Your task to perform on an android device: Search for vegetarian restaurants on Maps Image 0: 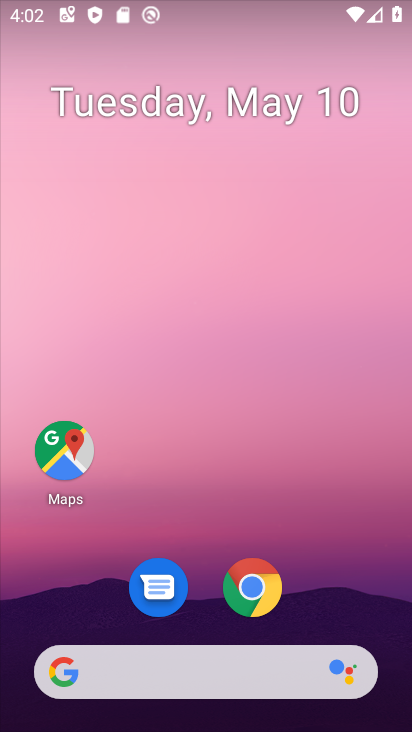
Step 0: drag from (292, 674) to (239, 253)
Your task to perform on an android device: Search for vegetarian restaurants on Maps Image 1: 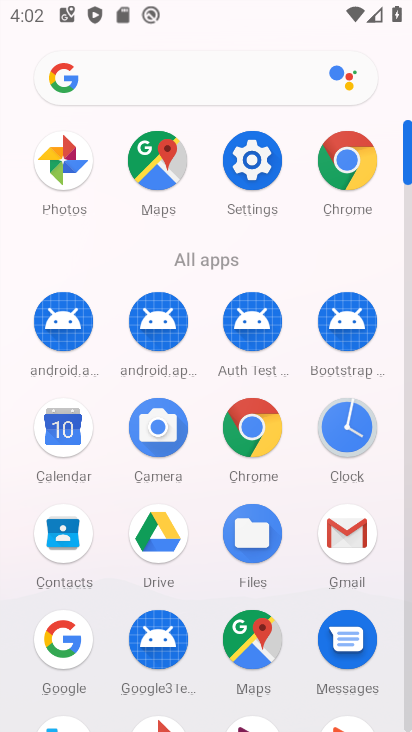
Step 1: click (145, 187)
Your task to perform on an android device: Search for vegetarian restaurants on Maps Image 2: 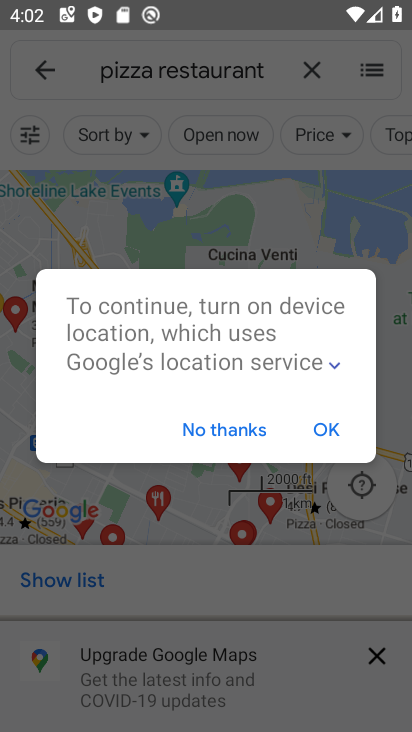
Step 2: click (241, 421)
Your task to perform on an android device: Search for vegetarian restaurants on Maps Image 3: 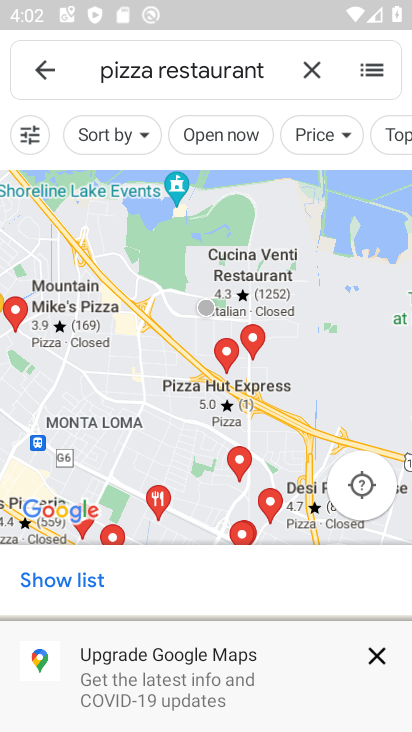
Step 3: click (313, 70)
Your task to perform on an android device: Search for vegetarian restaurants on Maps Image 4: 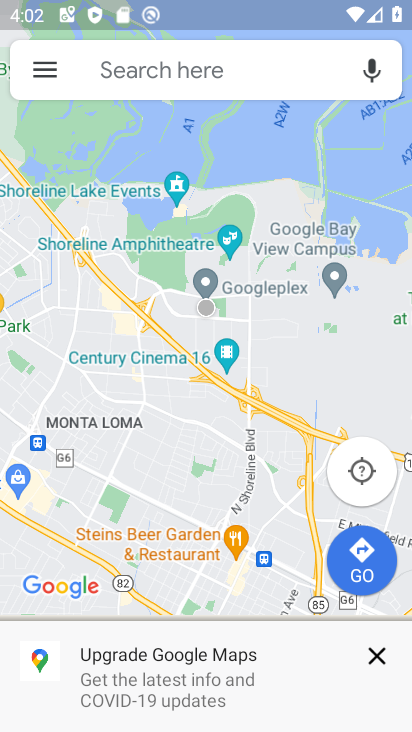
Step 4: click (221, 75)
Your task to perform on an android device: Search for vegetarian restaurants on Maps Image 5: 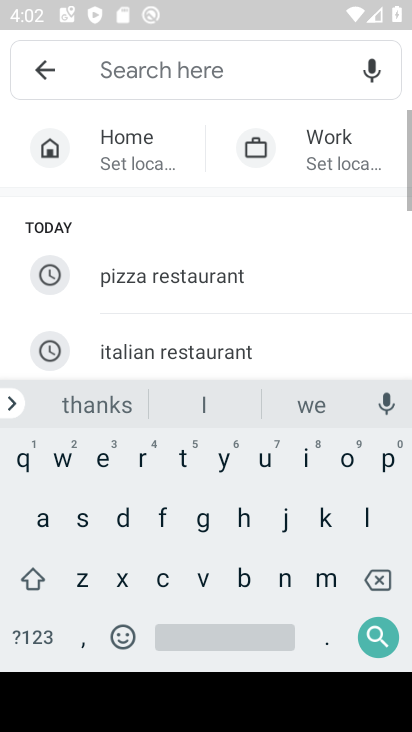
Step 5: click (209, 569)
Your task to perform on an android device: Search for vegetarian restaurants on Maps Image 6: 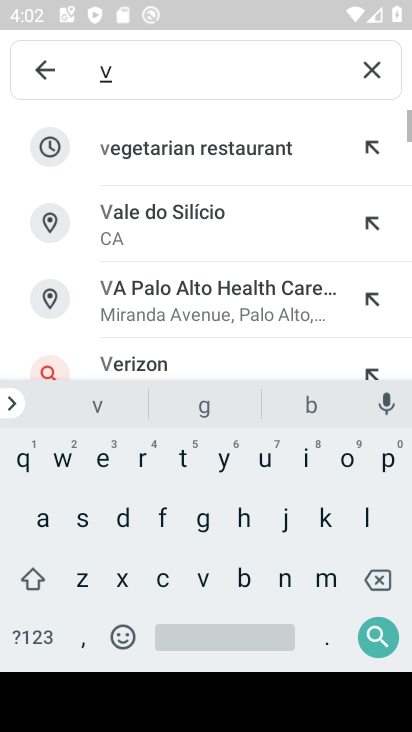
Step 6: click (167, 163)
Your task to perform on an android device: Search for vegetarian restaurants on Maps Image 7: 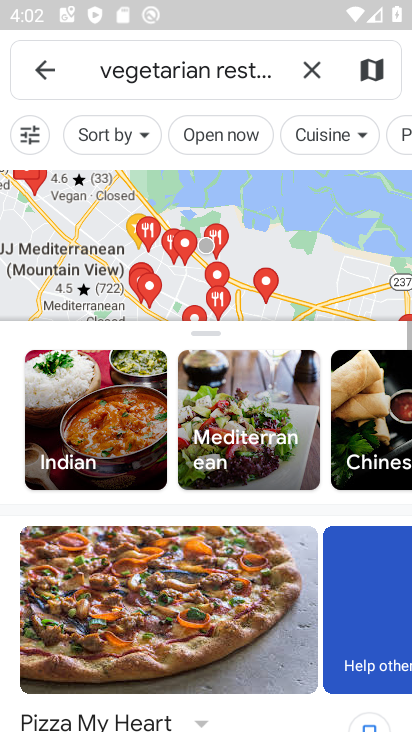
Step 7: click (229, 250)
Your task to perform on an android device: Search for vegetarian restaurants on Maps Image 8: 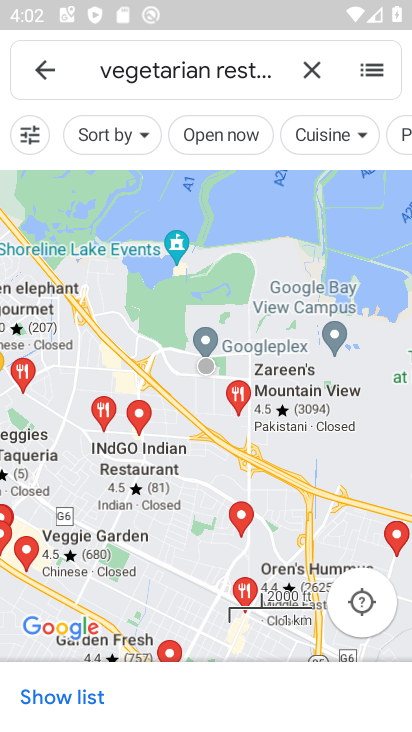
Step 8: task complete